Your task to perform on an android device: Go to battery settings Image 0: 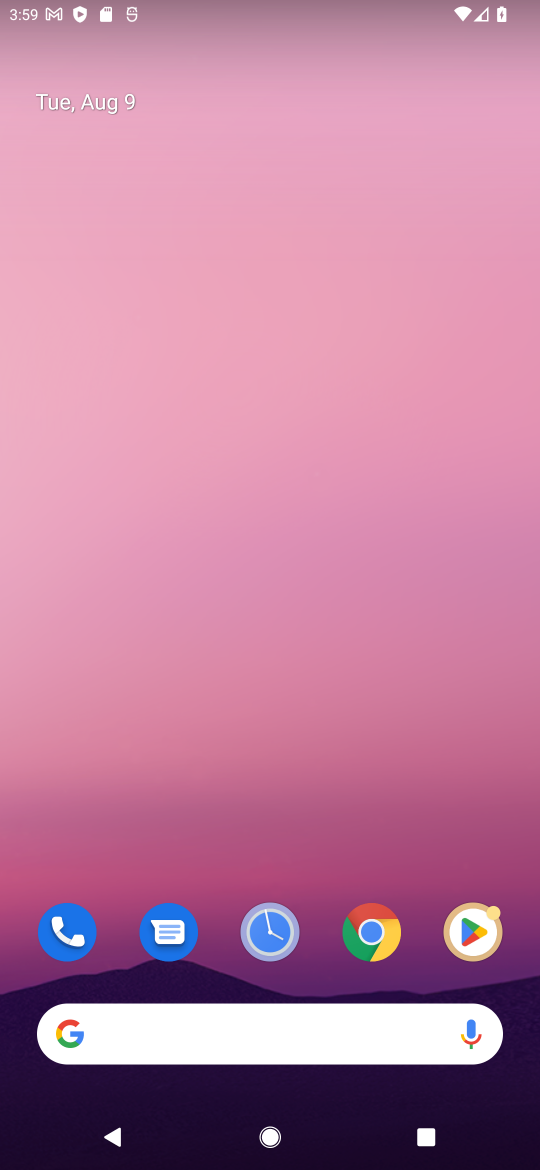
Step 0: drag from (301, 1022) to (310, 71)
Your task to perform on an android device: Go to battery settings Image 1: 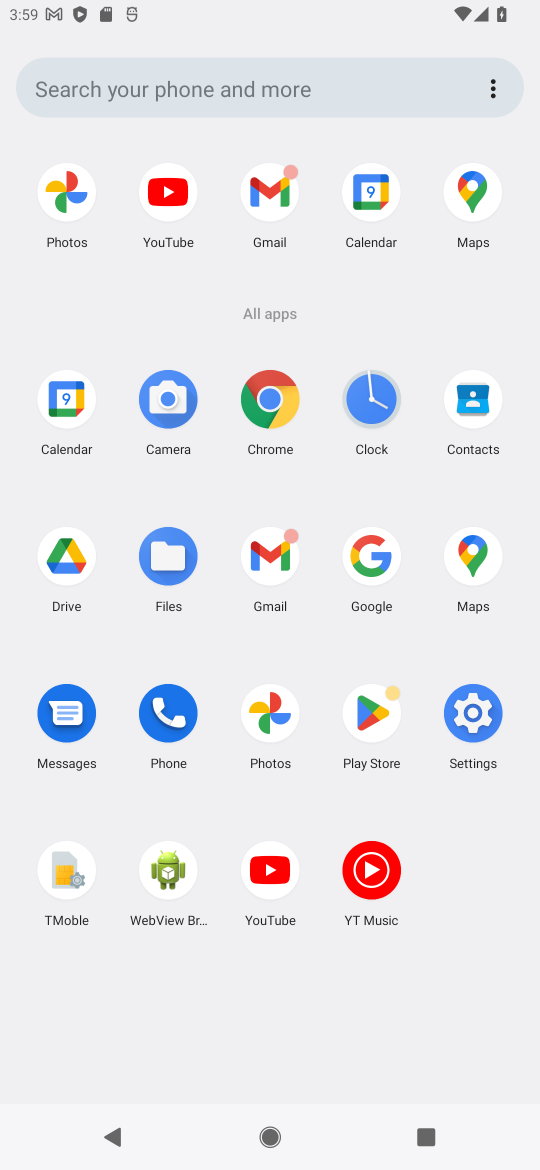
Step 1: click (479, 707)
Your task to perform on an android device: Go to battery settings Image 2: 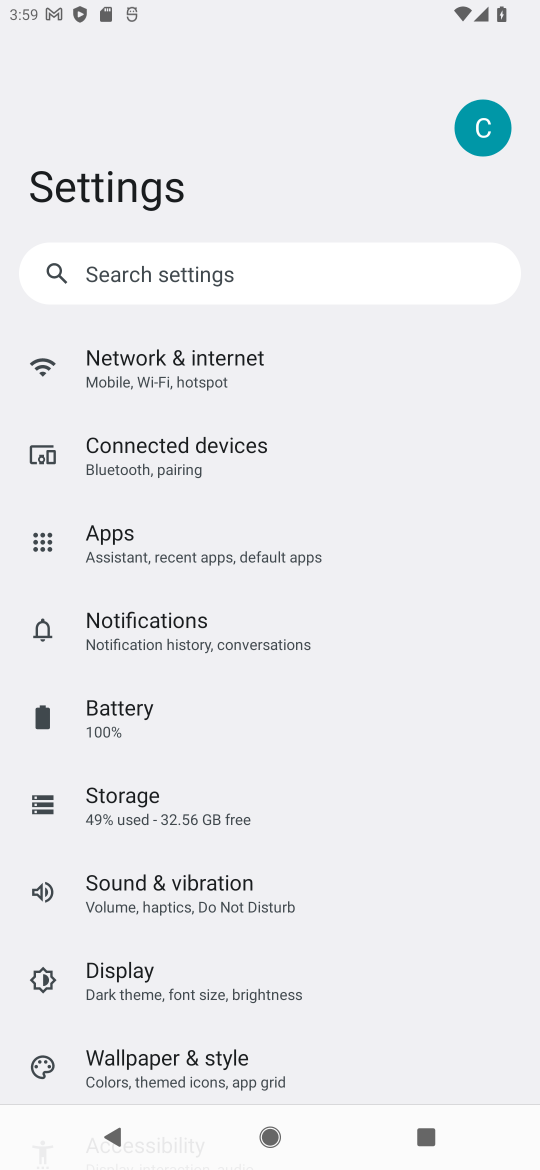
Step 2: click (135, 702)
Your task to perform on an android device: Go to battery settings Image 3: 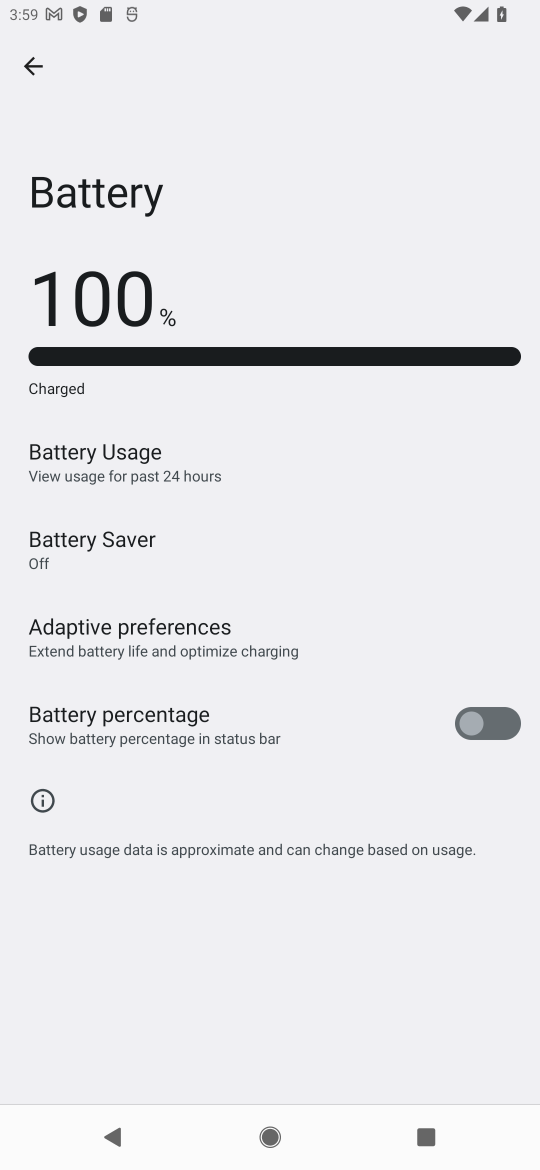
Step 3: task complete